Your task to perform on an android device: Open Wikipedia Image 0: 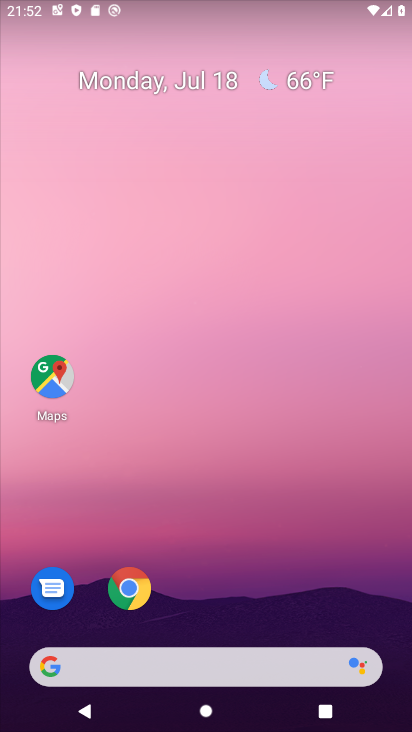
Step 0: click (129, 587)
Your task to perform on an android device: Open Wikipedia Image 1: 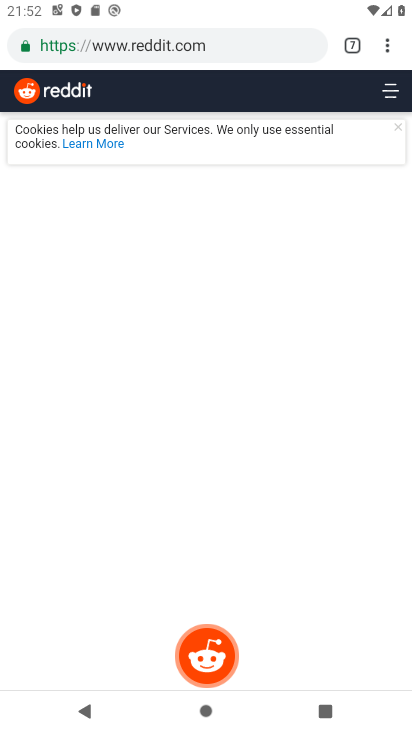
Step 1: drag from (388, 50) to (245, 97)
Your task to perform on an android device: Open Wikipedia Image 2: 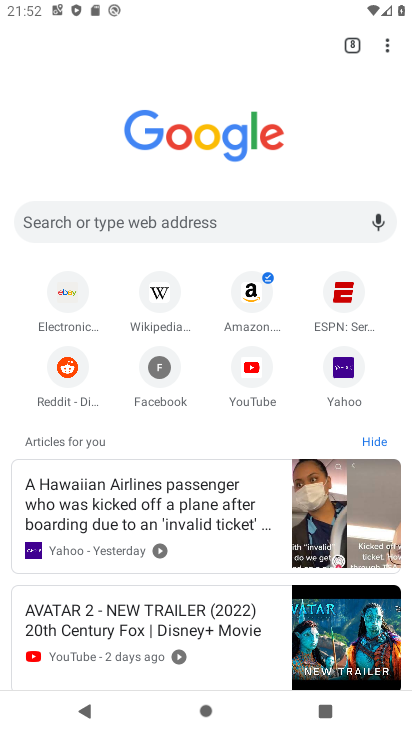
Step 2: click (161, 286)
Your task to perform on an android device: Open Wikipedia Image 3: 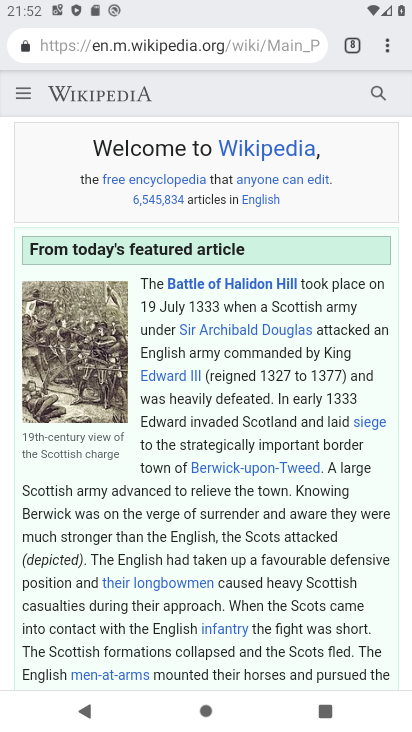
Step 3: task complete